Your task to perform on an android device: manage bookmarks in the chrome app Image 0: 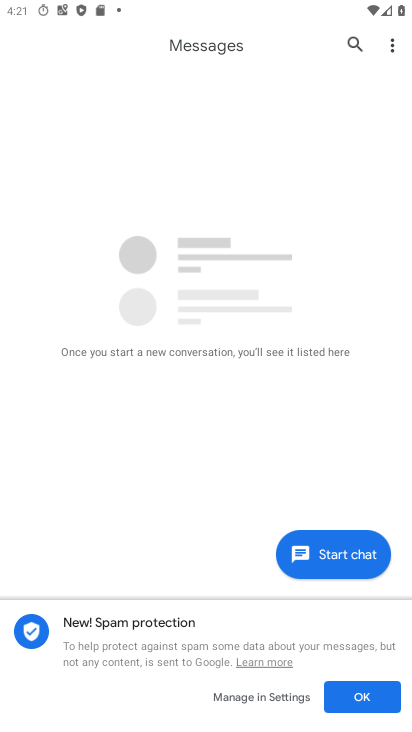
Step 0: press home button
Your task to perform on an android device: manage bookmarks in the chrome app Image 1: 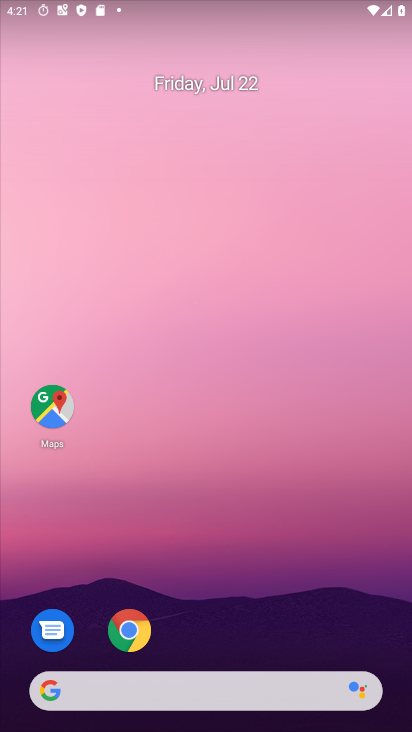
Step 1: drag from (289, 683) to (262, 32)
Your task to perform on an android device: manage bookmarks in the chrome app Image 2: 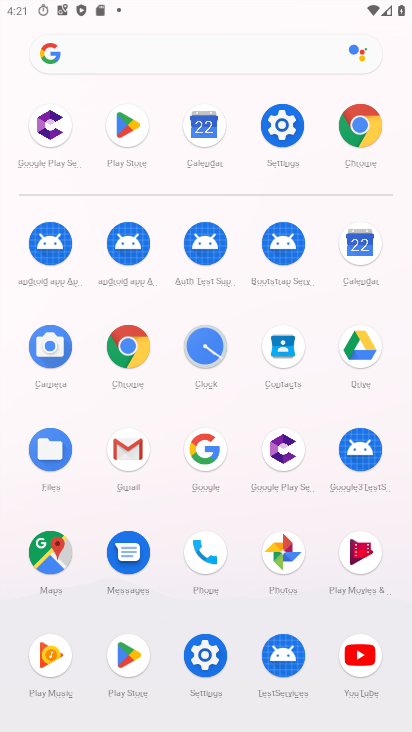
Step 2: click (147, 353)
Your task to perform on an android device: manage bookmarks in the chrome app Image 3: 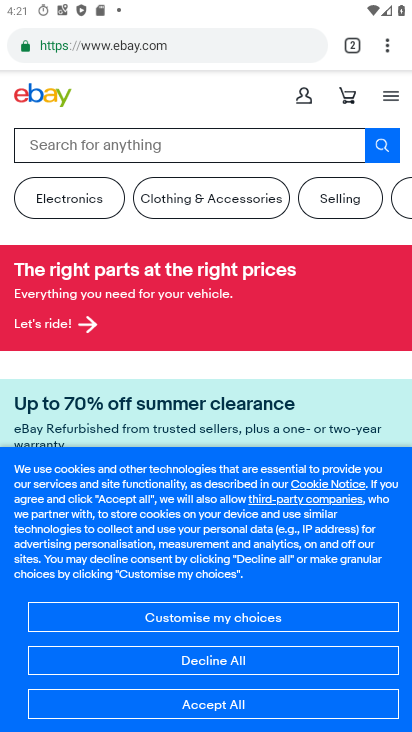
Step 3: task complete